Your task to perform on an android device: Set the phone to "Do not disturb". Image 0: 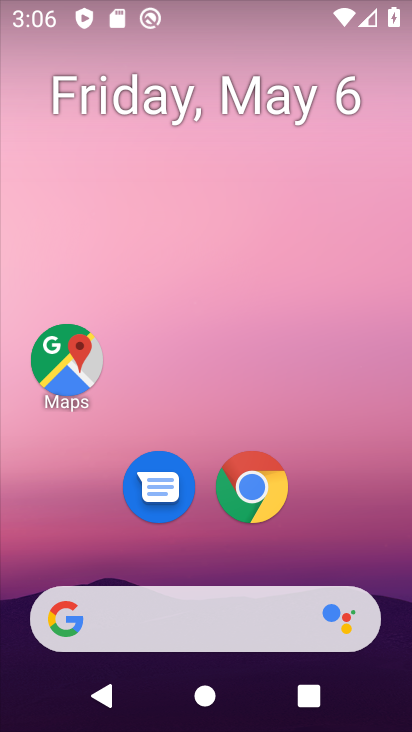
Step 0: drag from (291, 559) to (297, 2)
Your task to perform on an android device: Set the phone to "Do not disturb". Image 1: 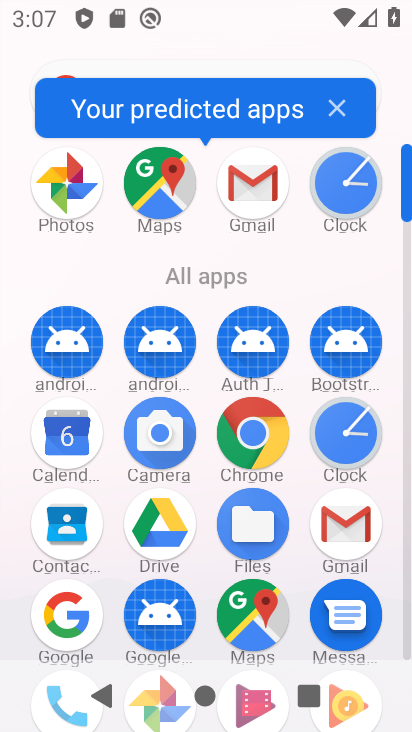
Step 1: drag from (214, 574) to (203, 189)
Your task to perform on an android device: Set the phone to "Do not disturb". Image 2: 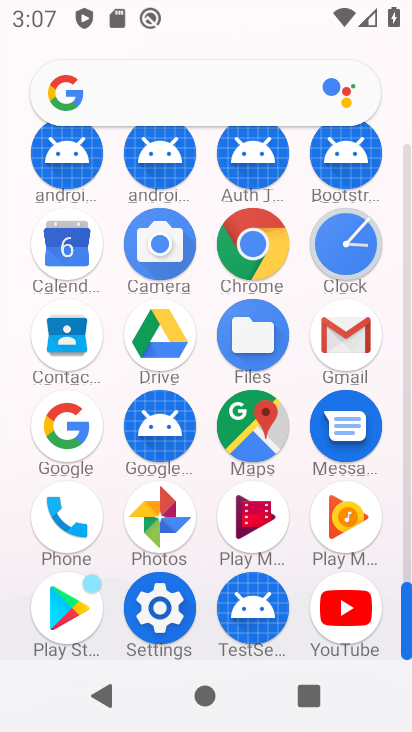
Step 2: click (143, 614)
Your task to perform on an android device: Set the phone to "Do not disturb". Image 3: 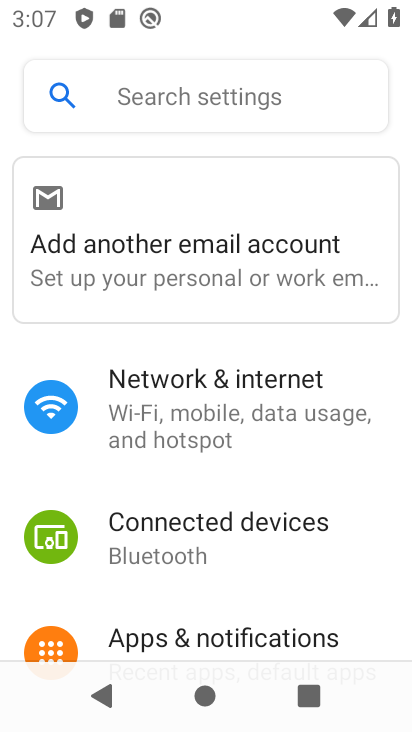
Step 3: drag from (243, 588) to (282, 357)
Your task to perform on an android device: Set the phone to "Do not disturb". Image 4: 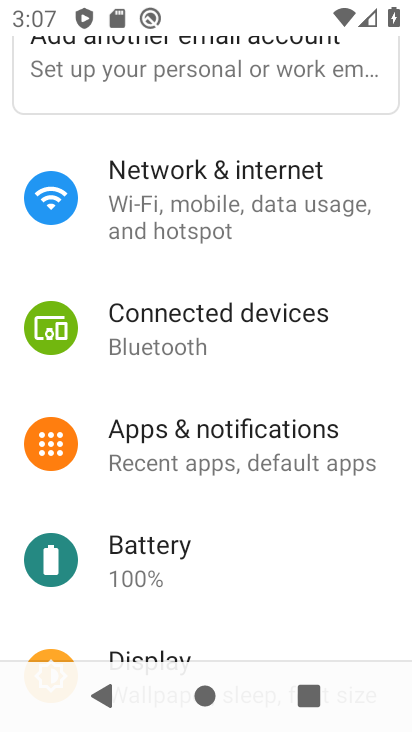
Step 4: drag from (238, 549) to (288, 124)
Your task to perform on an android device: Set the phone to "Do not disturb". Image 5: 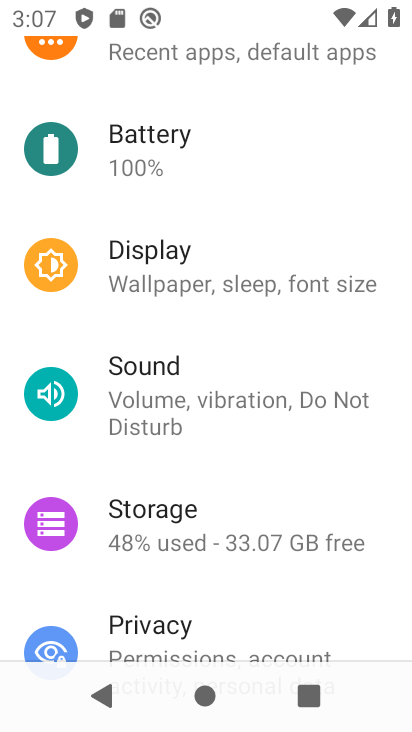
Step 5: drag from (321, 549) to (322, 163)
Your task to perform on an android device: Set the phone to "Do not disturb". Image 6: 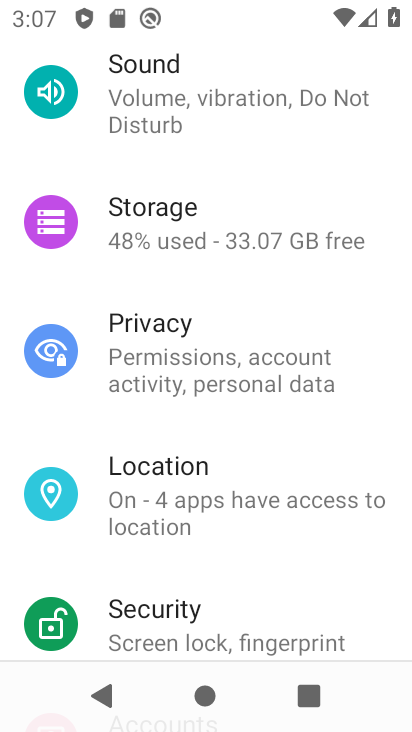
Step 6: drag from (298, 591) to (271, 281)
Your task to perform on an android device: Set the phone to "Do not disturb". Image 7: 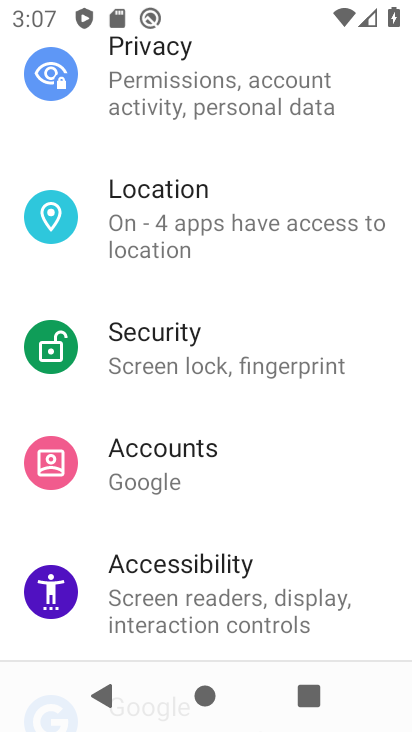
Step 7: drag from (313, 601) to (338, 152)
Your task to perform on an android device: Set the phone to "Do not disturb". Image 8: 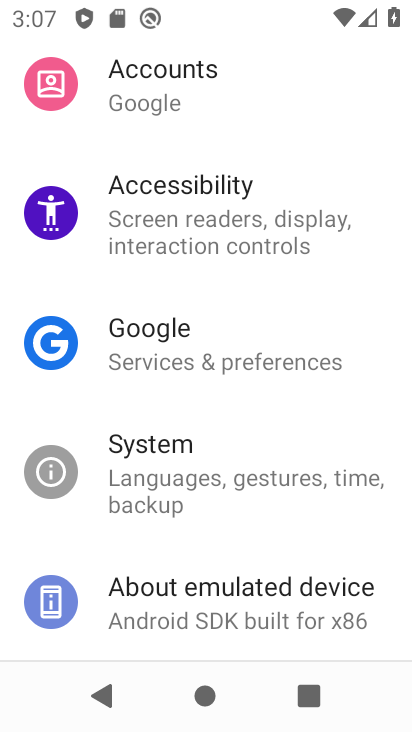
Step 8: drag from (293, 546) to (303, 171)
Your task to perform on an android device: Set the phone to "Do not disturb". Image 9: 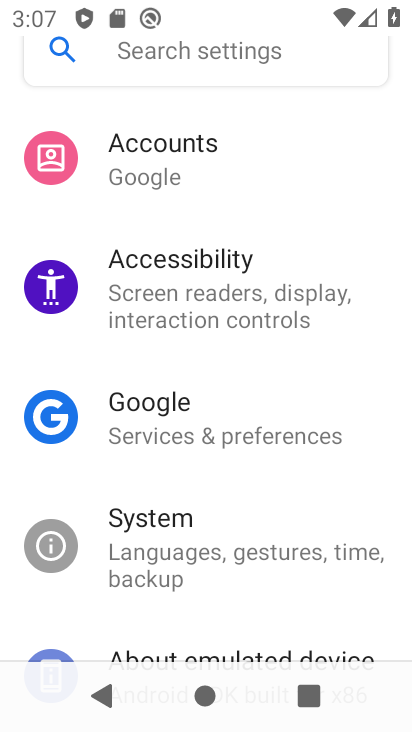
Step 9: drag from (341, 322) to (400, 670)
Your task to perform on an android device: Set the phone to "Do not disturb". Image 10: 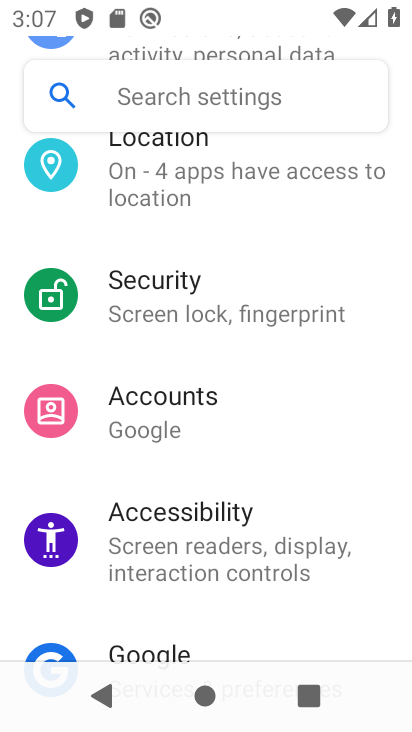
Step 10: drag from (283, 221) to (233, 606)
Your task to perform on an android device: Set the phone to "Do not disturb". Image 11: 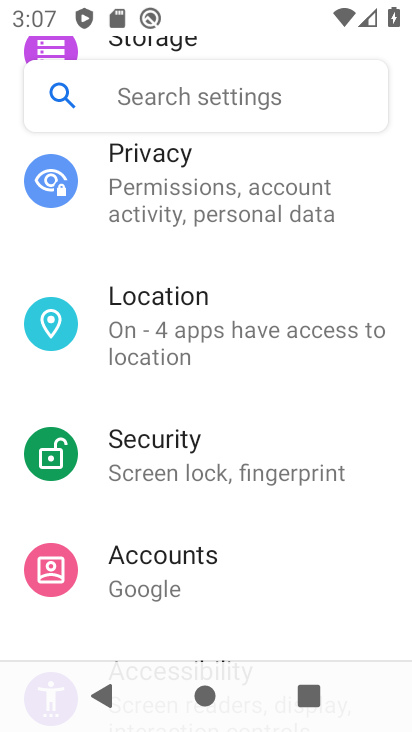
Step 11: drag from (227, 244) to (247, 624)
Your task to perform on an android device: Set the phone to "Do not disturb". Image 12: 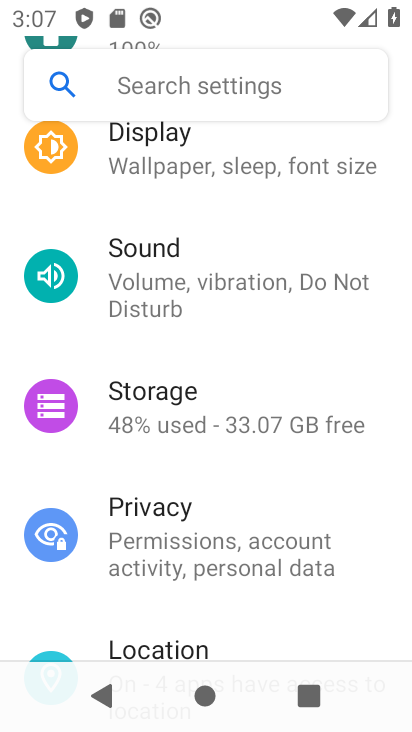
Step 12: drag from (182, 308) to (211, 561)
Your task to perform on an android device: Set the phone to "Do not disturb". Image 13: 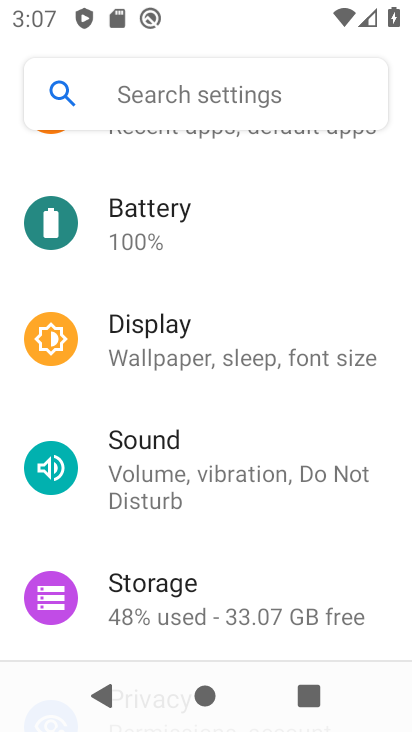
Step 13: click (218, 505)
Your task to perform on an android device: Set the phone to "Do not disturb". Image 14: 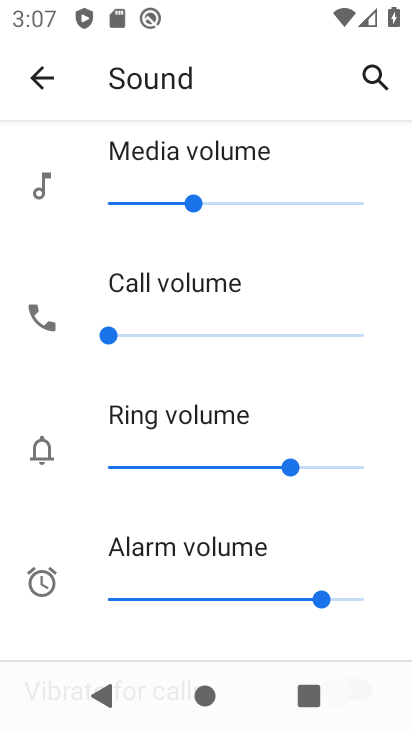
Step 14: drag from (186, 637) to (224, 153)
Your task to perform on an android device: Set the phone to "Do not disturb". Image 15: 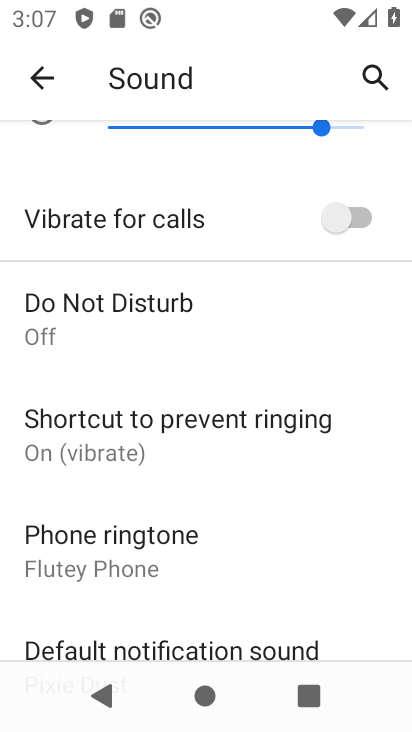
Step 15: drag from (140, 595) to (131, 378)
Your task to perform on an android device: Set the phone to "Do not disturb". Image 16: 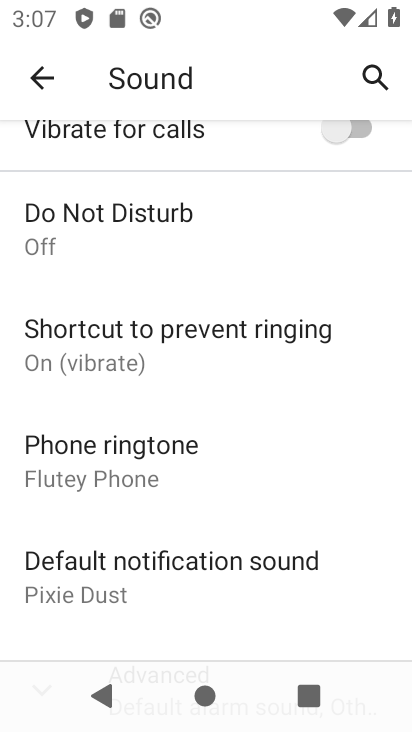
Step 16: click (157, 260)
Your task to perform on an android device: Set the phone to "Do not disturb". Image 17: 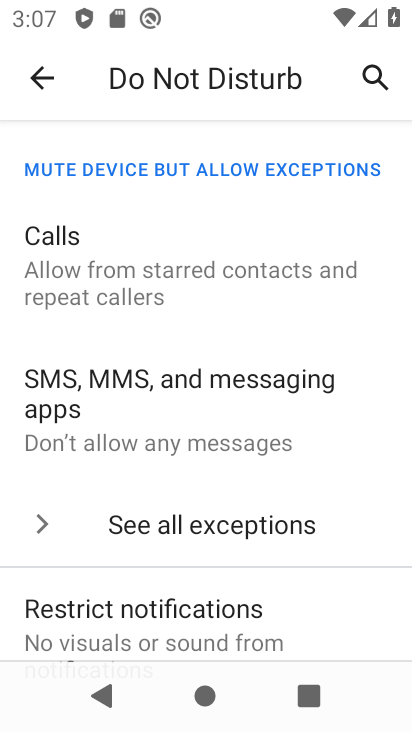
Step 17: drag from (265, 611) to (328, 225)
Your task to perform on an android device: Set the phone to "Do not disturb". Image 18: 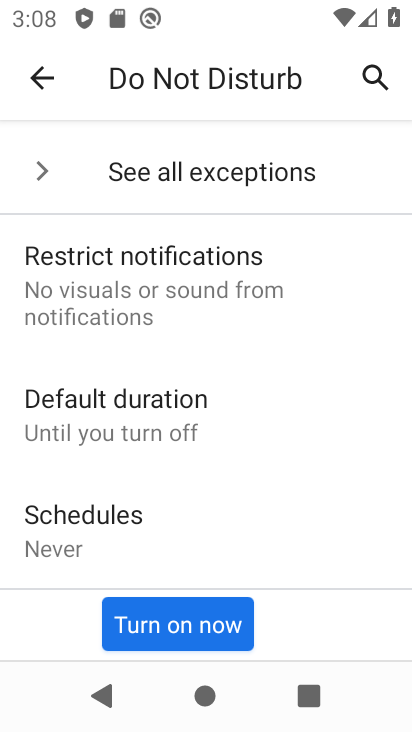
Step 18: click (164, 626)
Your task to perform on an android device: Set the phone to "Do not disturb". Image 19: 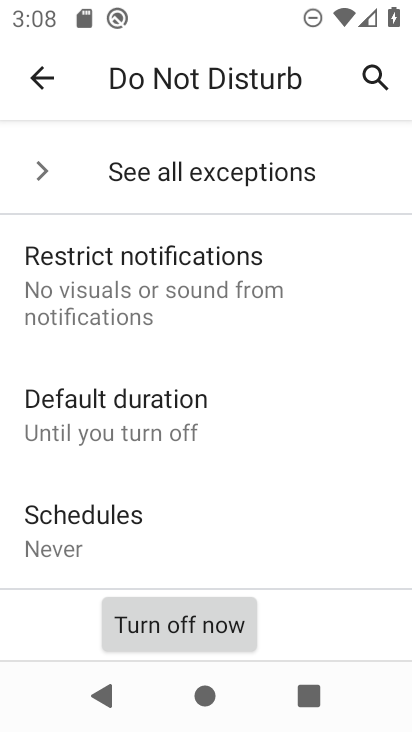
Step 19: task complete